Your task to perform on an android device: make emails show in primary in the gmail app Image 0: 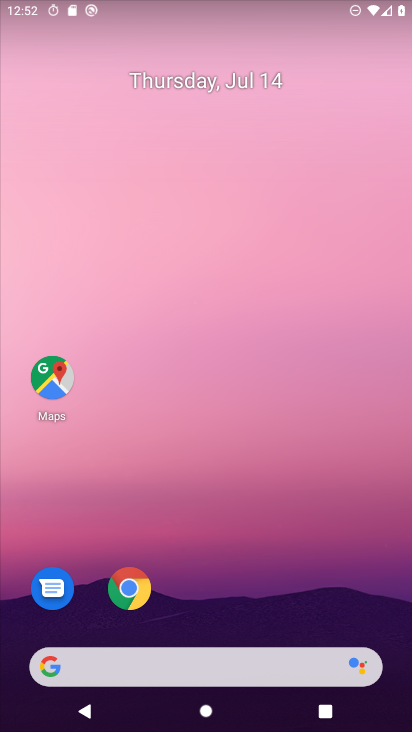
Step 0: press home button
Your task to perform on an android device: make emails show in primary in the gmail app Image 1: 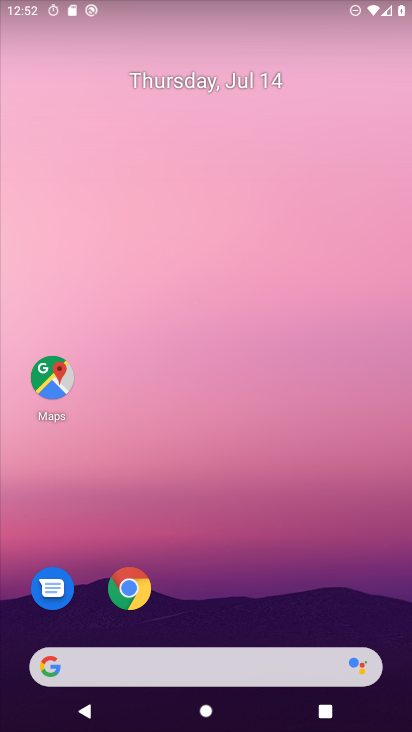
Step 1: drag from (147, 666) to (313, 135)
Your task to perform on an android device: make emails show in primary in the gmail app Image 2: 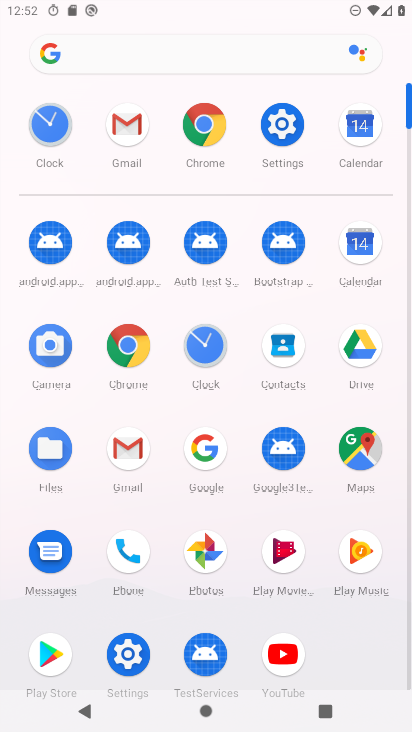
Step 2: click (126, 130)
Your task to perform on an android device: make emails show in primary in the gmail app Image 3: 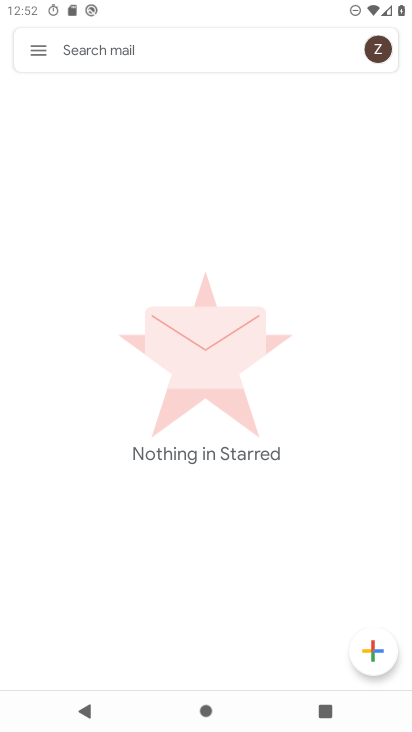
Step 3: click (36, 54)
Your task to perform on an android device: make emails show in primary in the gmail app Image 4: 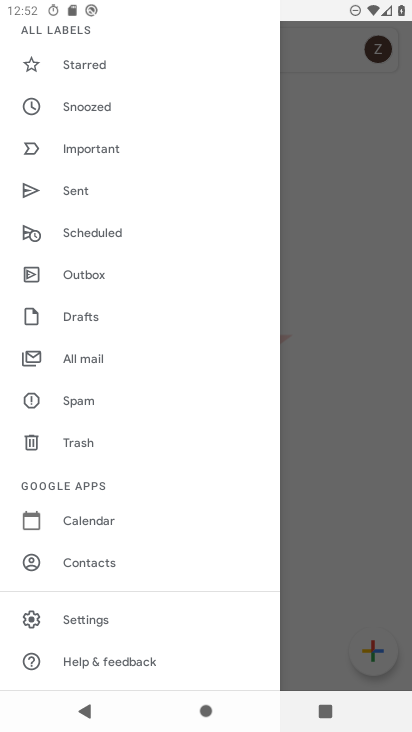
Step 4: click (104, 621)
Your task to perform on an android device: make emails show in primary in the gmail app Image 5: 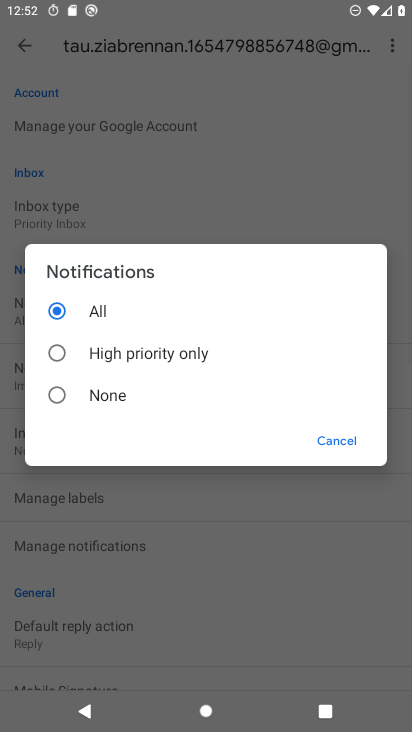
Step 5: click (336, 444)
Your task to perform on an android device: make emails show in primary in the gmail app Image 6: 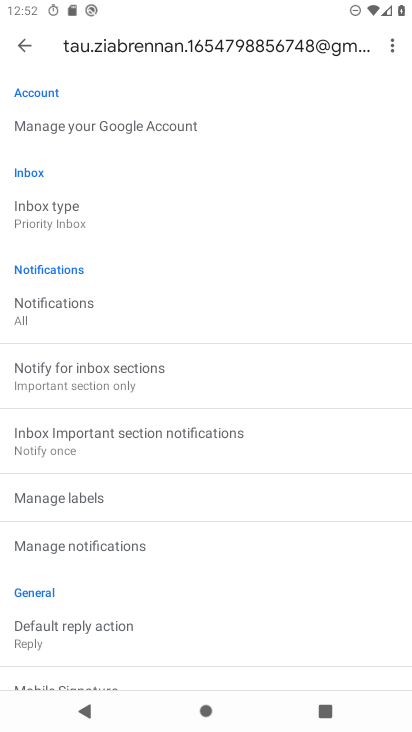
Step 6: click (54, 383)
Your task to perform on an android device: make emails show in primary in the gmail app Image 7: 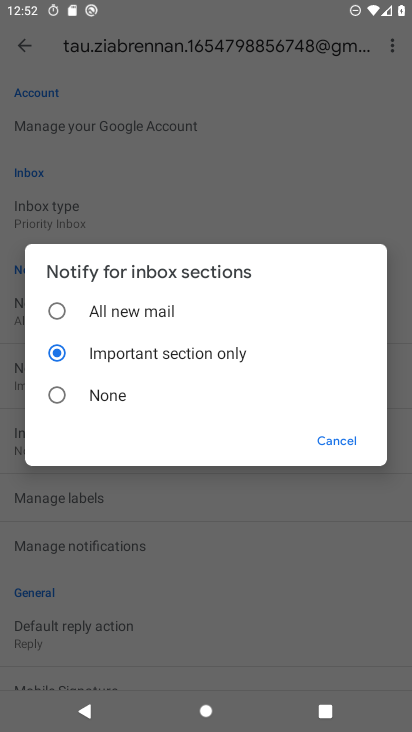
Step 7: click (326, 445)
Your task to perform on an android device: make emails show in primary in the gmail app Image 8: 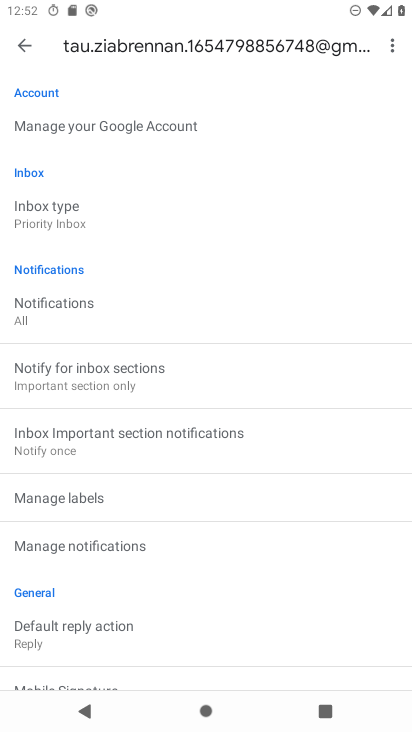
Step 8: task complete